Your task to perform on an android device: Open Reddit.com Image 0: 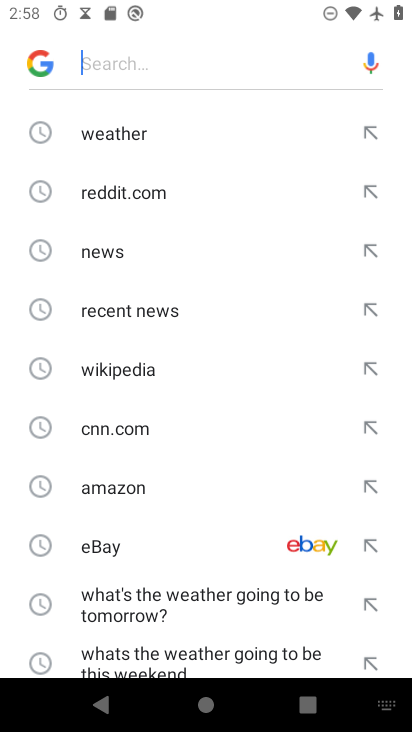
Step 0: press home button
Your task to perform on an android device: Open Reddit.com Image 1: 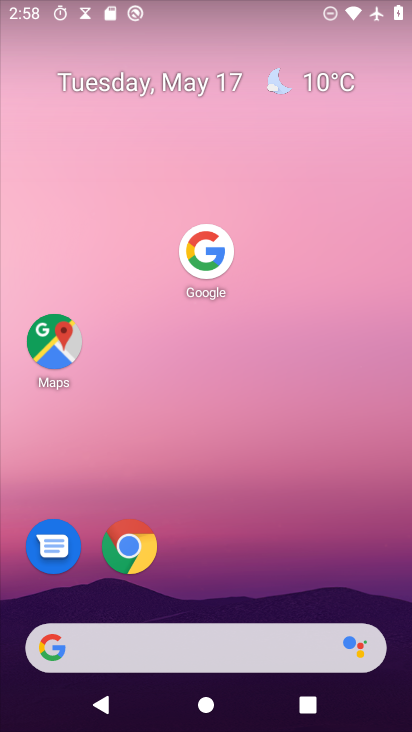
Step 1: drag from (170, 644) to (329, 49)
Your task to perform on an android device: Open Reddit.com Image 2: 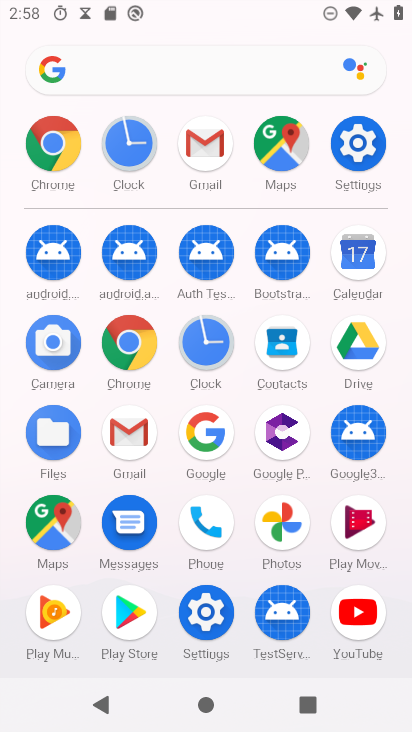
Step 2: click (61, 153)
Your task to perform on an android device: Open Reddit.com Image 3: 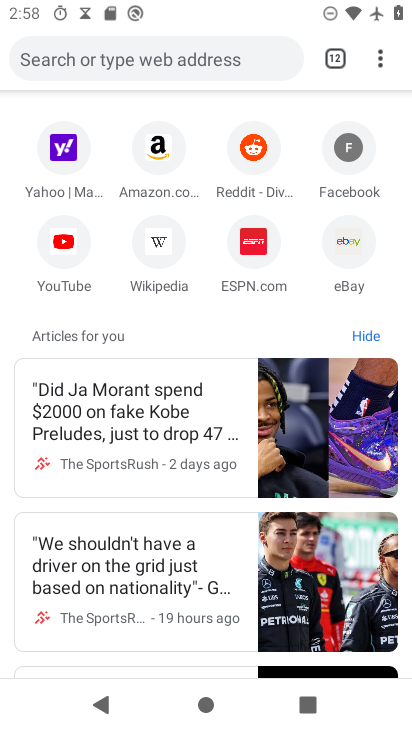
Step 3: click (253, 162)
Your task to perform on an android device: Open Reddit.com Image 4: 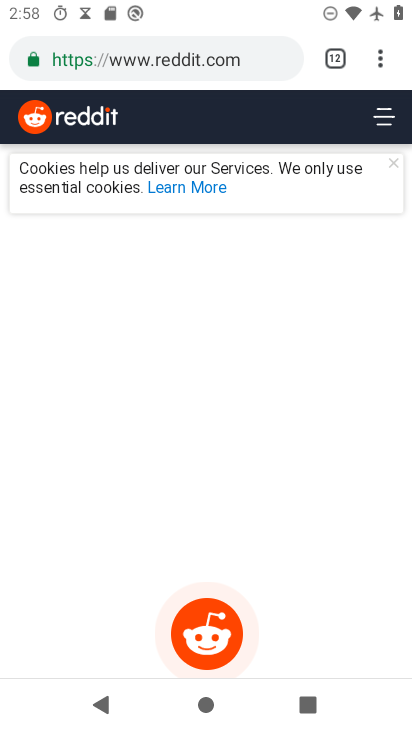
Step 4: task complete